Your task to perform on an android device: Open my contact list Image 0: 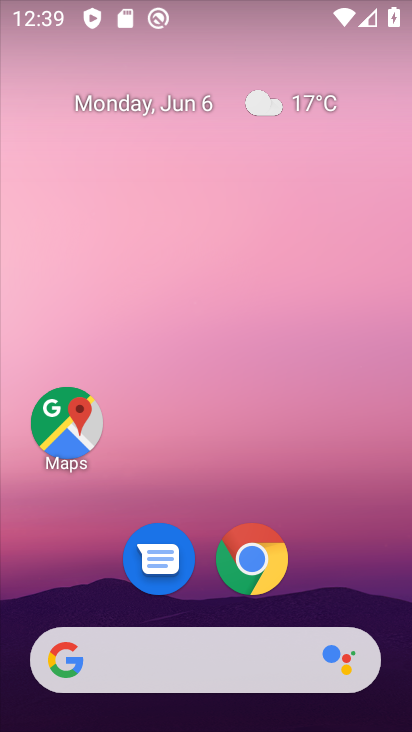
Step 0: drag from (242, 537) to (253, 92)
Your task to perform on an android device: Open my contact list Image 1: 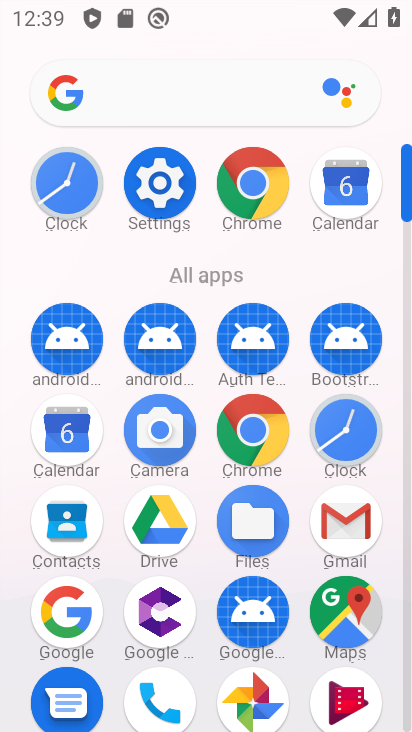
Step 1: drag from (134, 578) to (140, 420)
Your task to perform on an android device: Open my contact list Image 2: 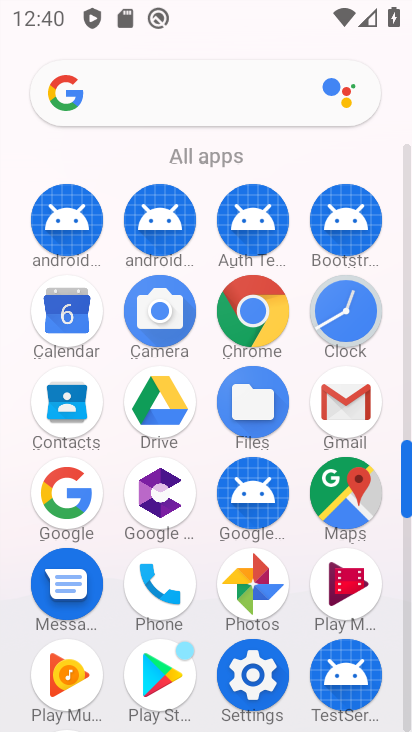
Step 2: click (86, 411)
Your task to perform on an android device: Open my contact list Image 3: 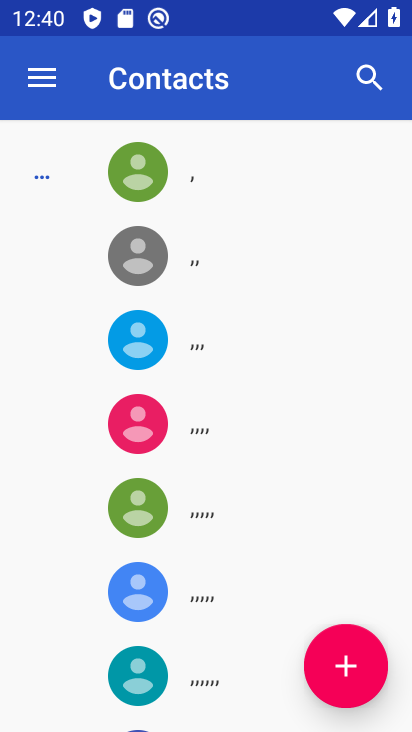
Step 3: task complete